Your task to perform on an android device: Open eBay Image 0: 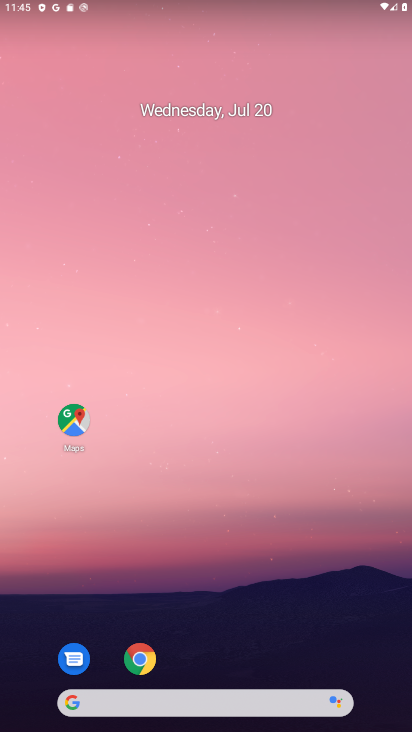
Step 0: click (140, 665)
Your task to perform on an android device: Open eBay Image 1: 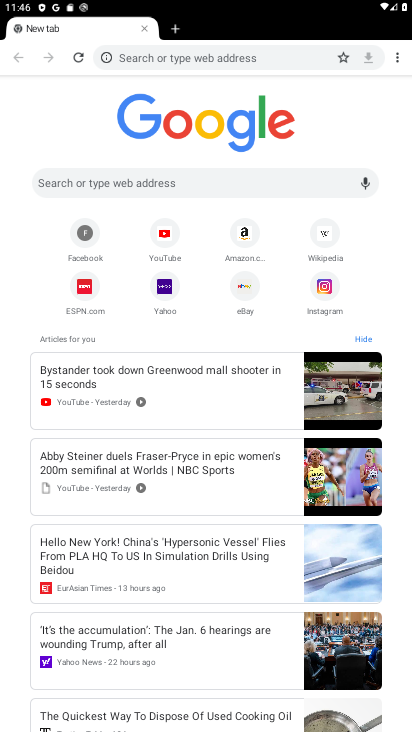
Step 1: click (244, 292)
Your task to perform on an android device: Open eBay Image 2: 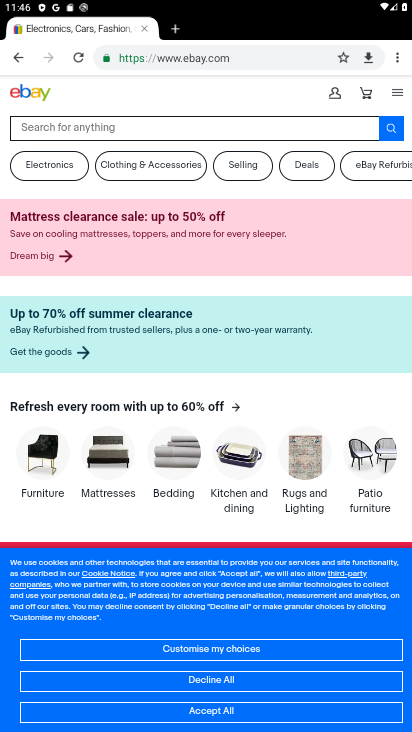
Step 2: task complete